Your task to perform on an android device: Go to CNN.com Image 0: 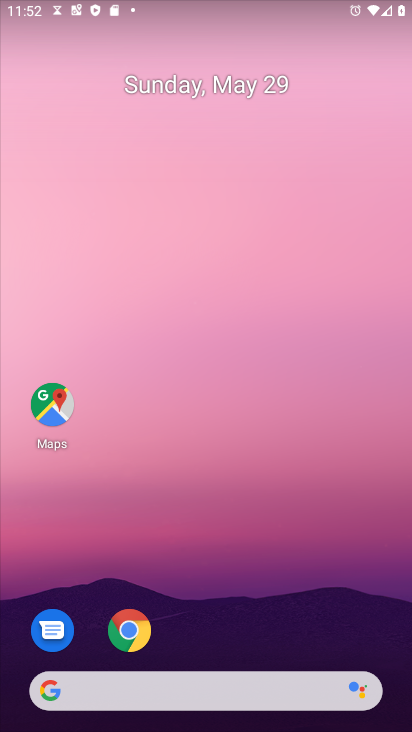
Step 0: click (129, 620)
Your task to perform on an android device: Go to CNN.com Image 1: 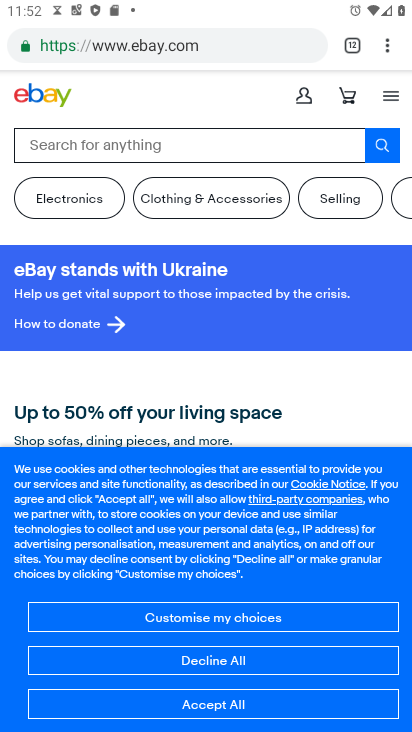
Step 1: click (341, 45)
Your task to perform on an android device: Go to CNN.com Image 2: 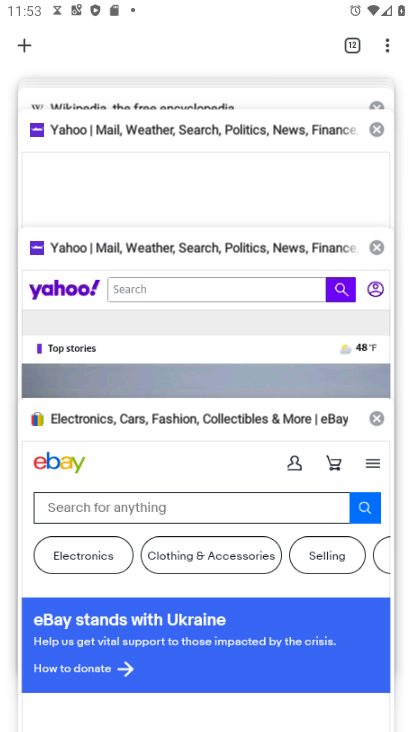
Step 2: drag from (132, 212) to (124, 600)
Your task to perform on an android device: Go to CNN.com Image 3: 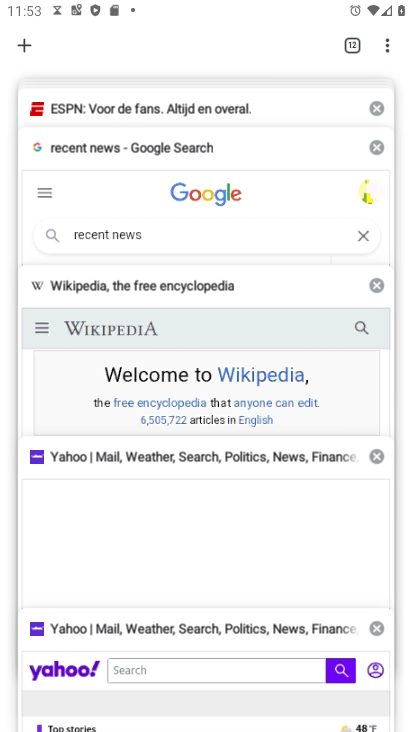
Step 3: drag from (109, 182) to (130, 578)
Your task to perform on an android device: Go to CNN.com Image 4: 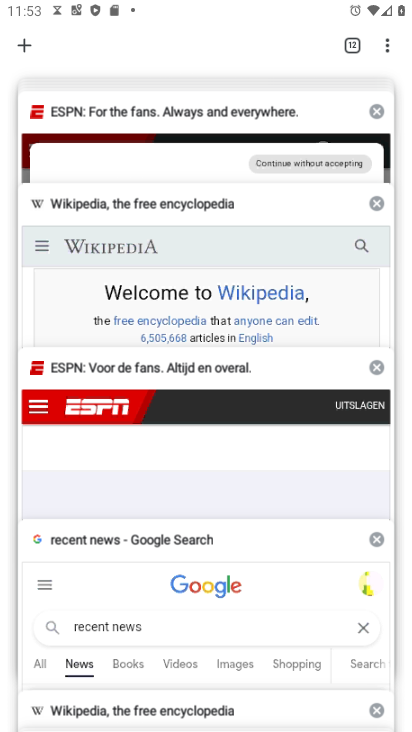
Step 4: drag from (110, 181) to (117, 532)
Your task to perform on an android device: Go to CNN.com Image 5: 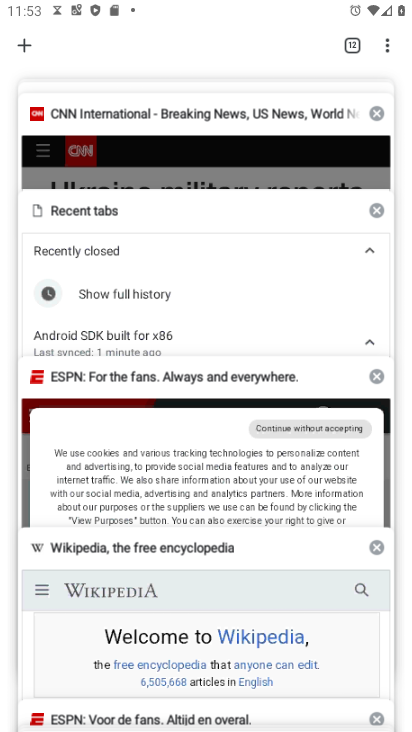
Step 5: click (159, 110)
Your task to perform on an android device: Go to CNN.com Image 6: 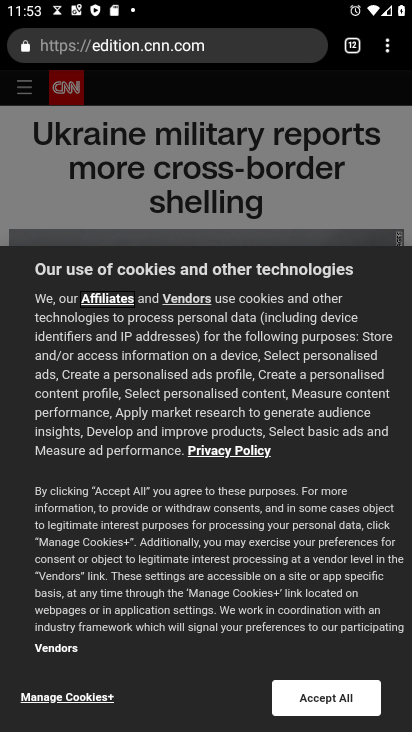
Step 6: task complete